Your task to perform on an android device: turn on showing notifications on the lock screen Image 0: 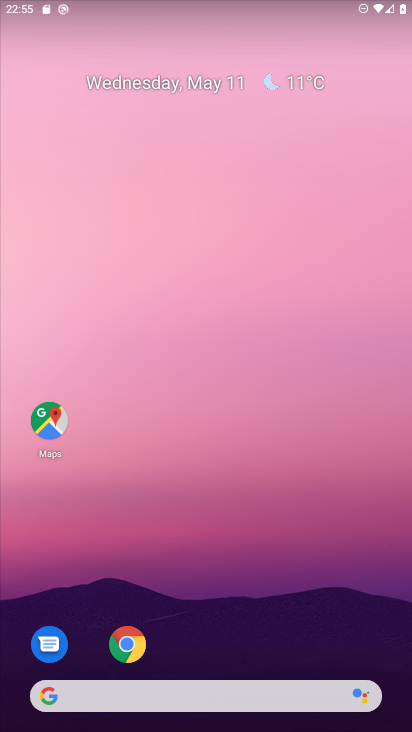
Step 0: drag from (302, 651) to (340, 185)
Your task to perform on an android device: turn on showing notifications on the lock screen Image 1: 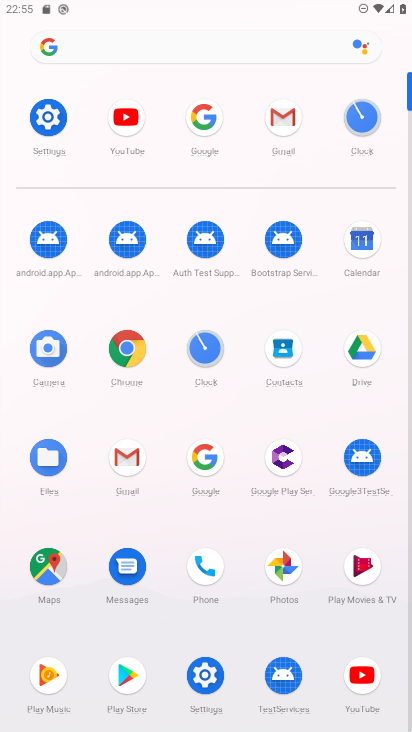
Step 1: click (46, 121)
Your task to perform on an android device: turn on showing notifications on the lock screen Image 2: 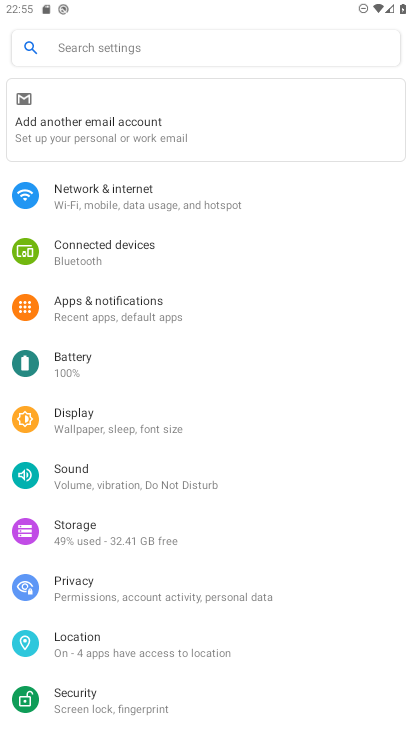
Step 2: click (103, 303)
Your task to perform on an android device: turn on showing notifications on the lock screen Image 3: 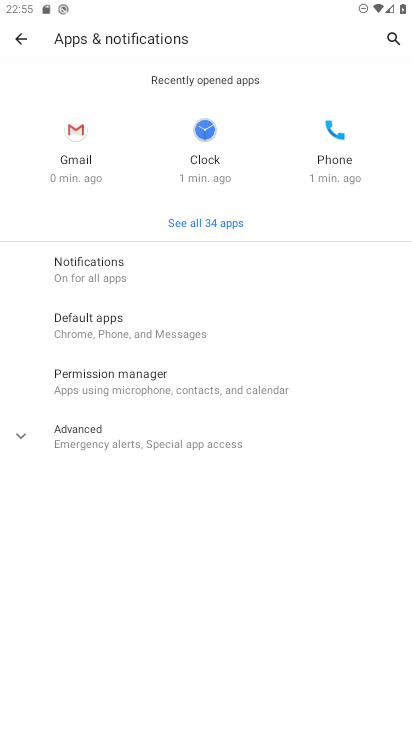
Step 3: click (97, 281)
Your task to perform on an android device: turn on showing notifications on the lock screen Image 4: 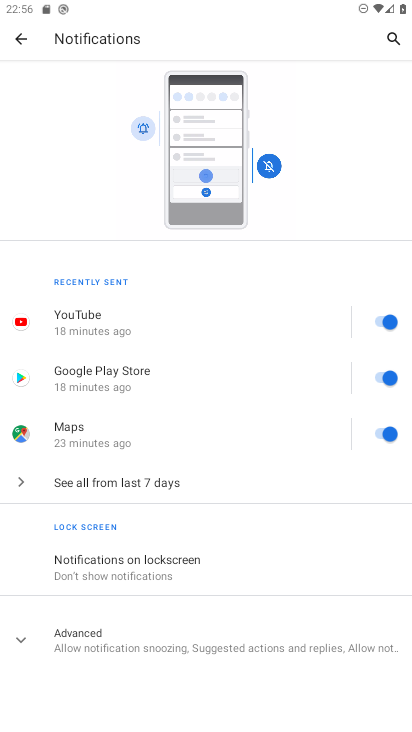
Step 4: click (58, 556)
Your task to perform on an android device: turn on showing notifications on the lock screen Image 5: 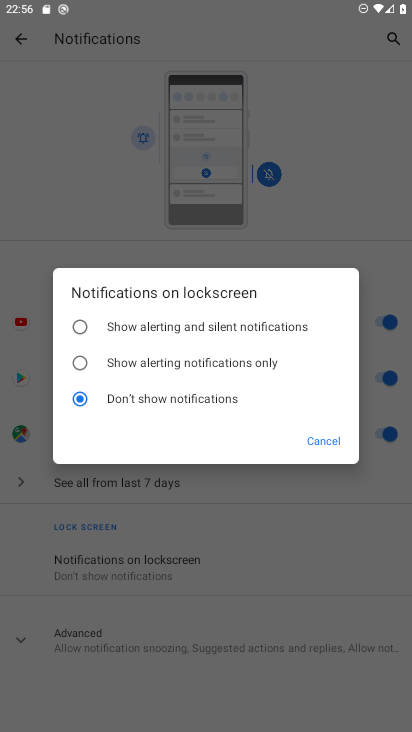
Step 5: click (77, 324)
Your task to perform on an android device: turn on showing notifications on the lock screen Image 6: 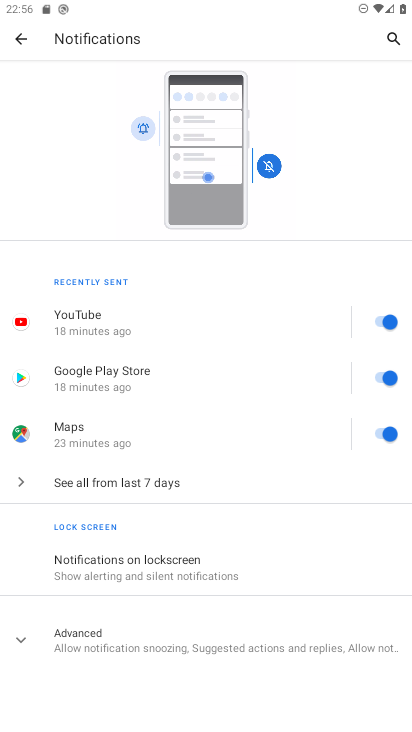
Step 6: task complete